Your task to perform on an android device: check android version Image 0: 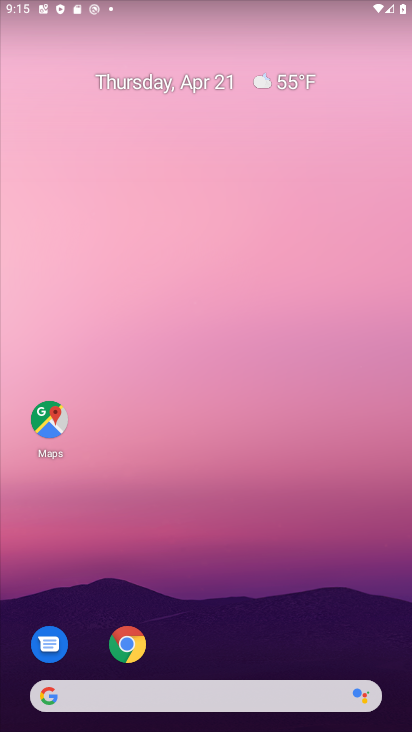
Step 0: drag from (256, 609) to (279, 143)
Your task to perform on an android device: check android version Image 1: 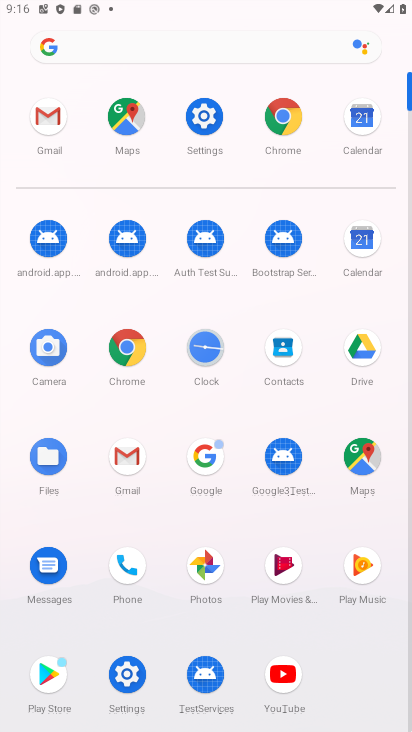
Step 1: click (205, 111)
Your task to perform on an android device: check android version Image 2: 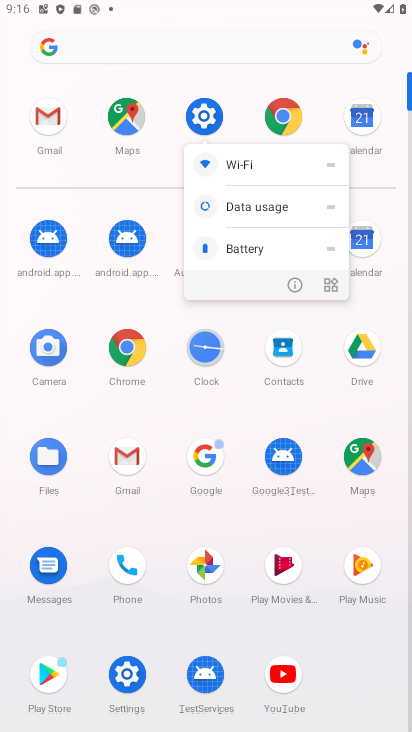
Step 2: click (204, 105)
Your task to perform on an android device: check android version Image 3: 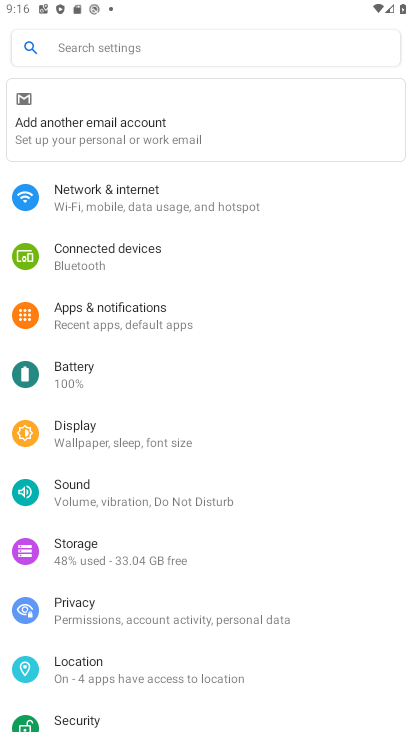
Step 3: drag from (170, 703) to (200, 306)
Your task to perform on an android device: check android version Image 4: 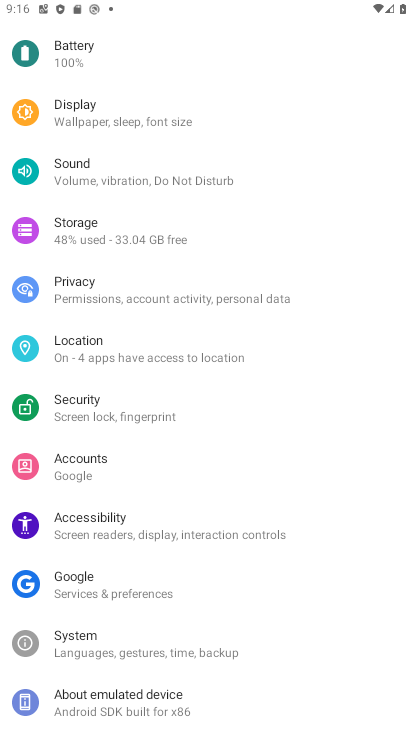
Step 4: drag from (147, 616) to (184, 238)
Your task to perform on an android device: check android version Image 5: 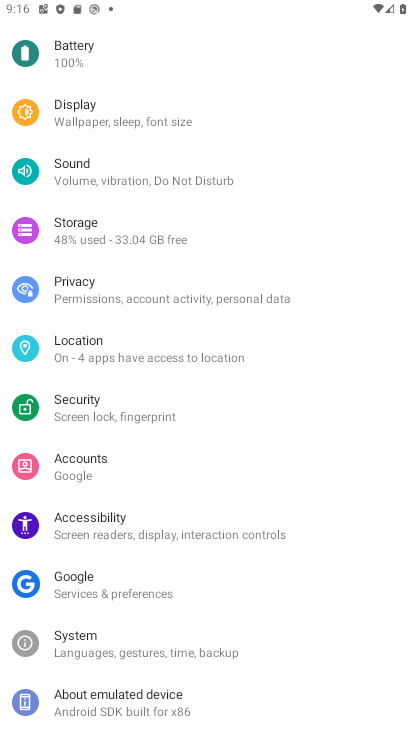
Step 5: click (116, 699)
Your task to perform on an android device: check android version Image 6: 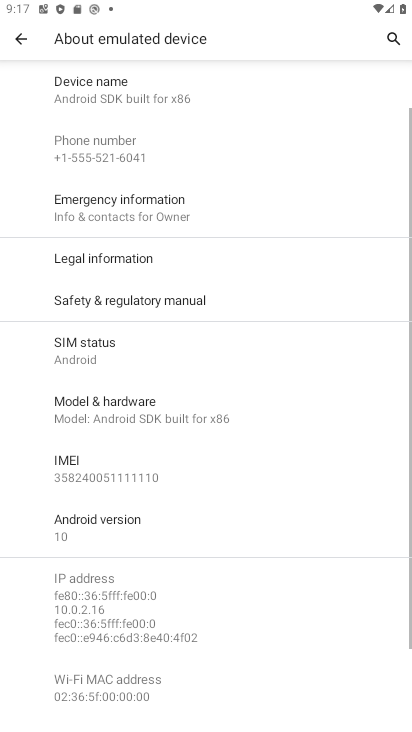
Step 6: click (127, 540)
Your task to perform on an android device: check android version Image 7: 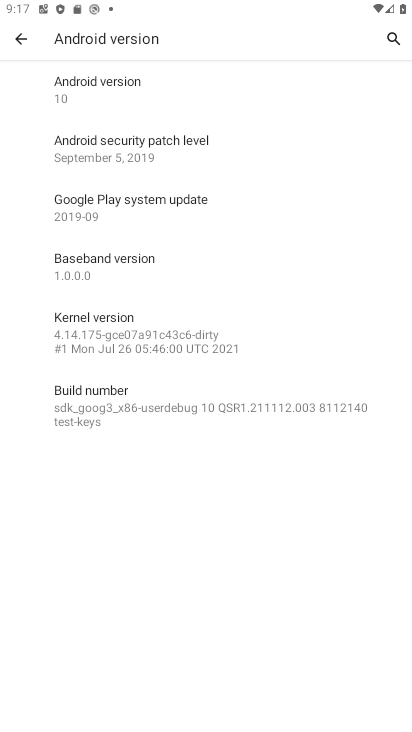
Step 7: click (69, 75)
Your task to perform on an android device: check android version Image 8: 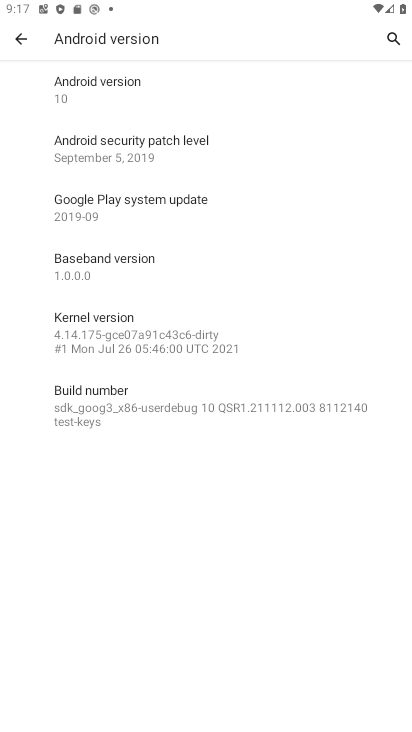
Step 8: task complete